Your task to perform on an android device: Open calendar and show me the first week of next month Image 0: 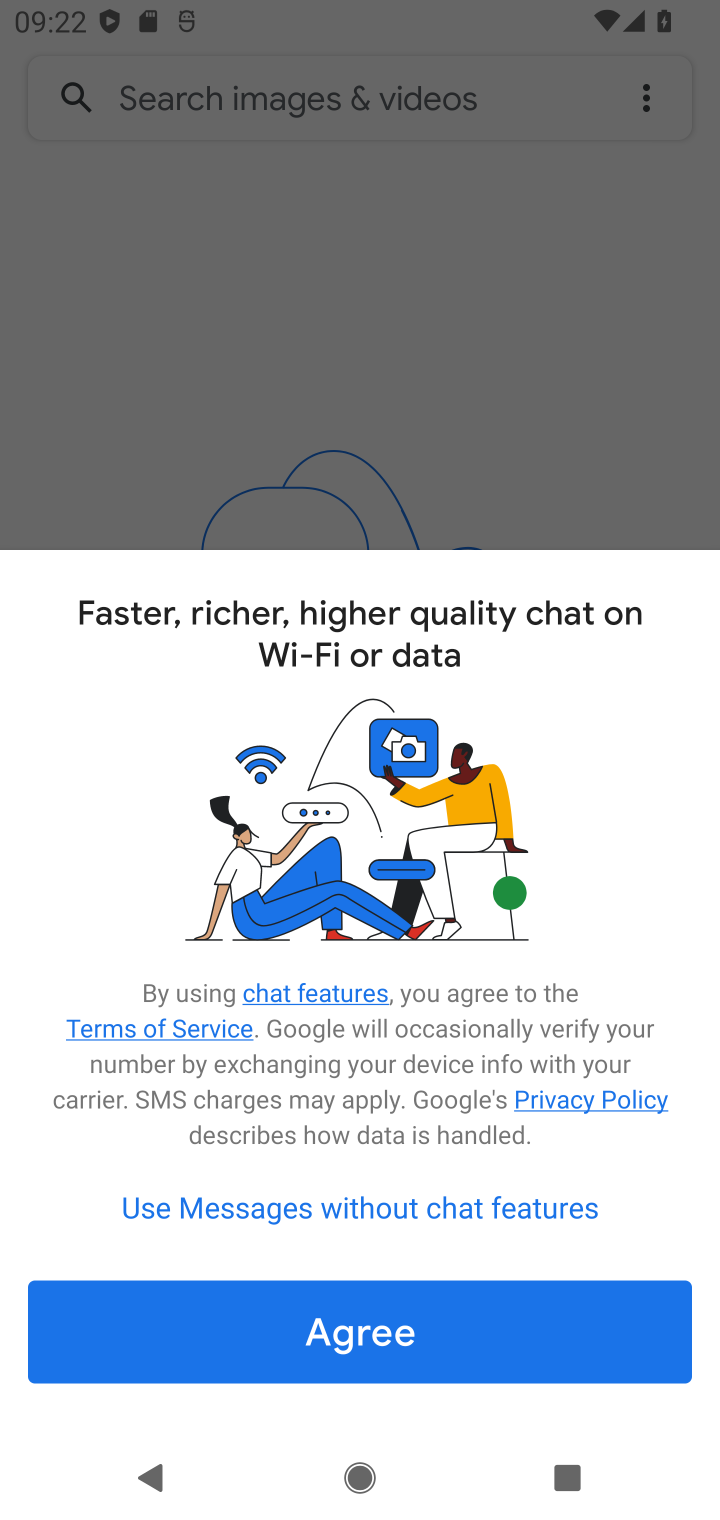
Step 0: click (523, 1334)
Your task to perform on an android device: Open calendar and show me the first week of next month Image 1: 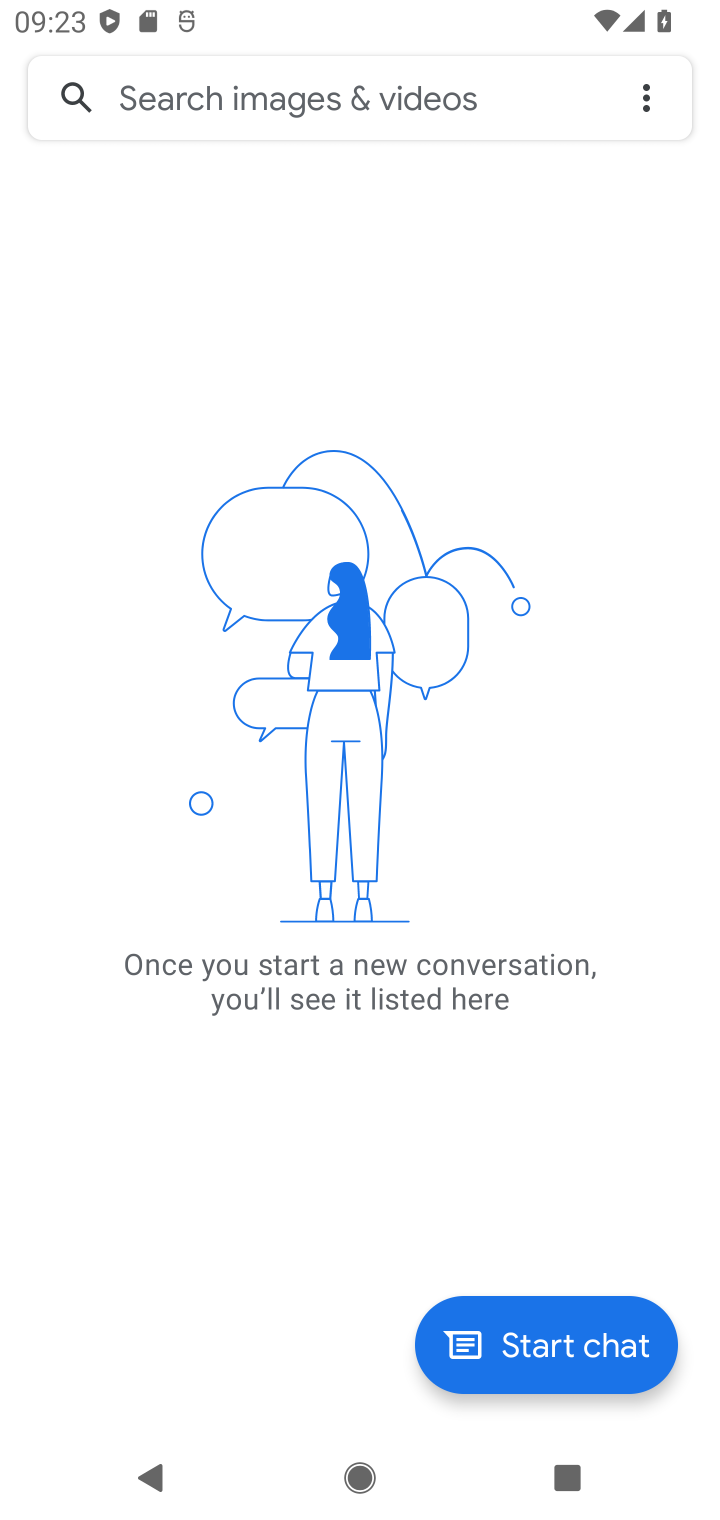
Step 1: press home button
Your task to perform on an android device: Open calendar and show me the first week of next month Image 2: 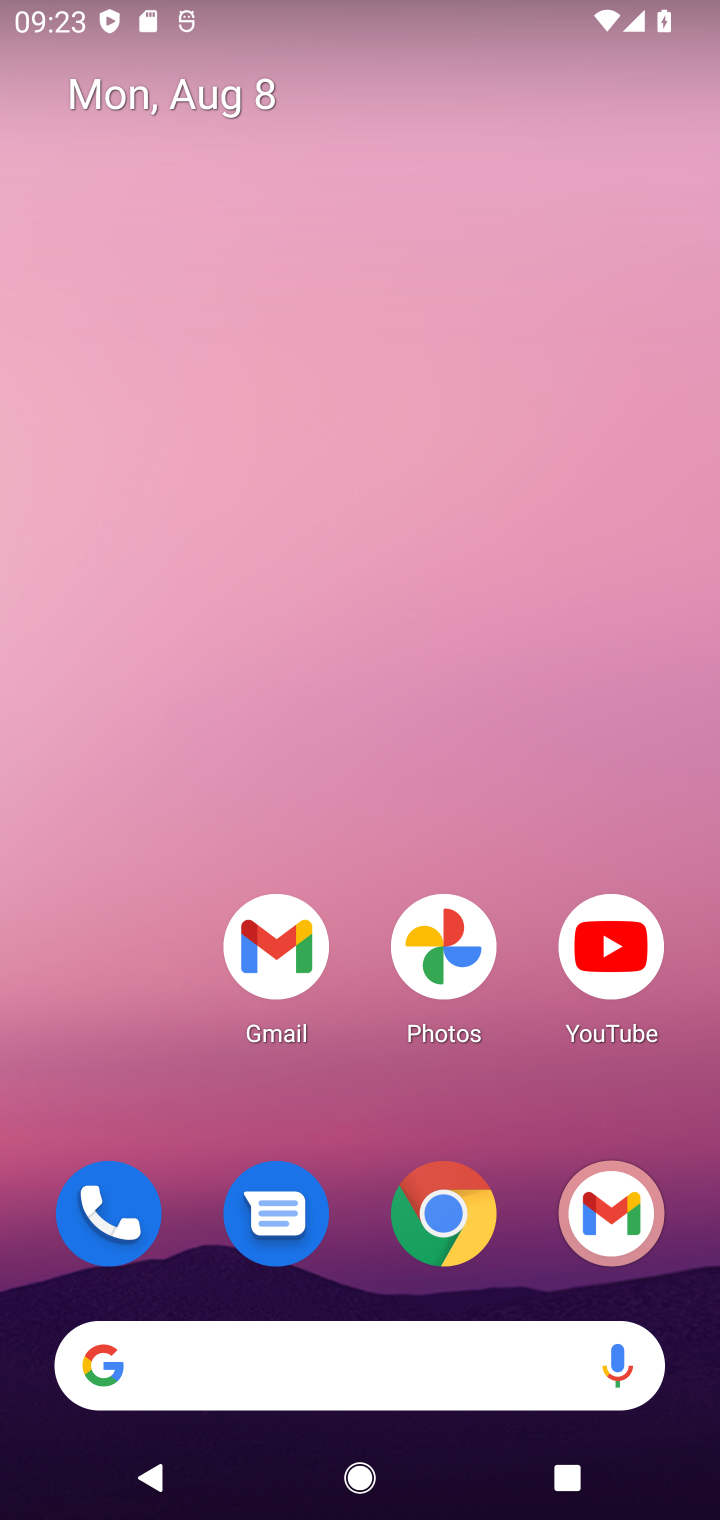
Step 2: drag from (328, 1010) to (283, 230)
Your task to perform on an android device: Open calendar and show me the first week of next month Image 3: 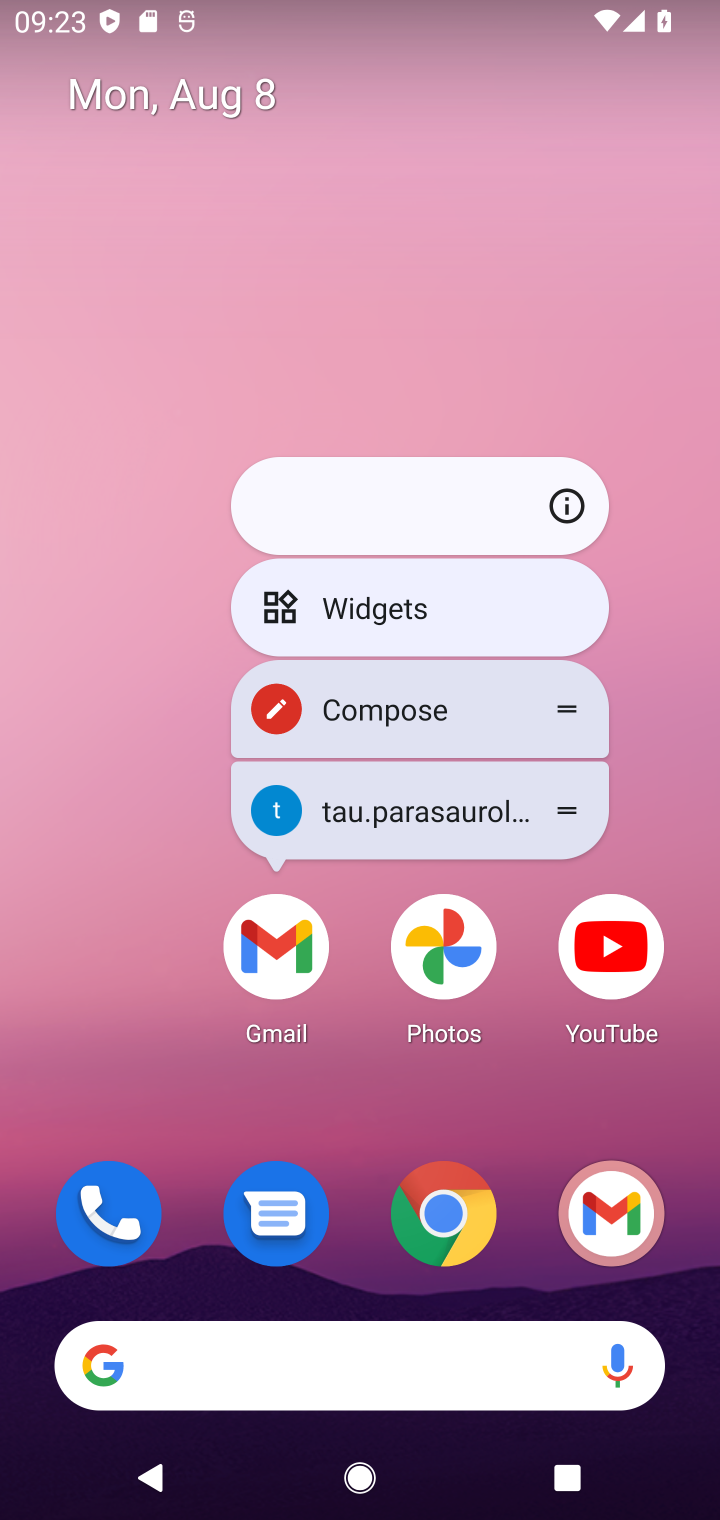
Step 3: click (118, 1036)
Your task to perform on an android device: Open calendar and show me the first week of next month Image 4: 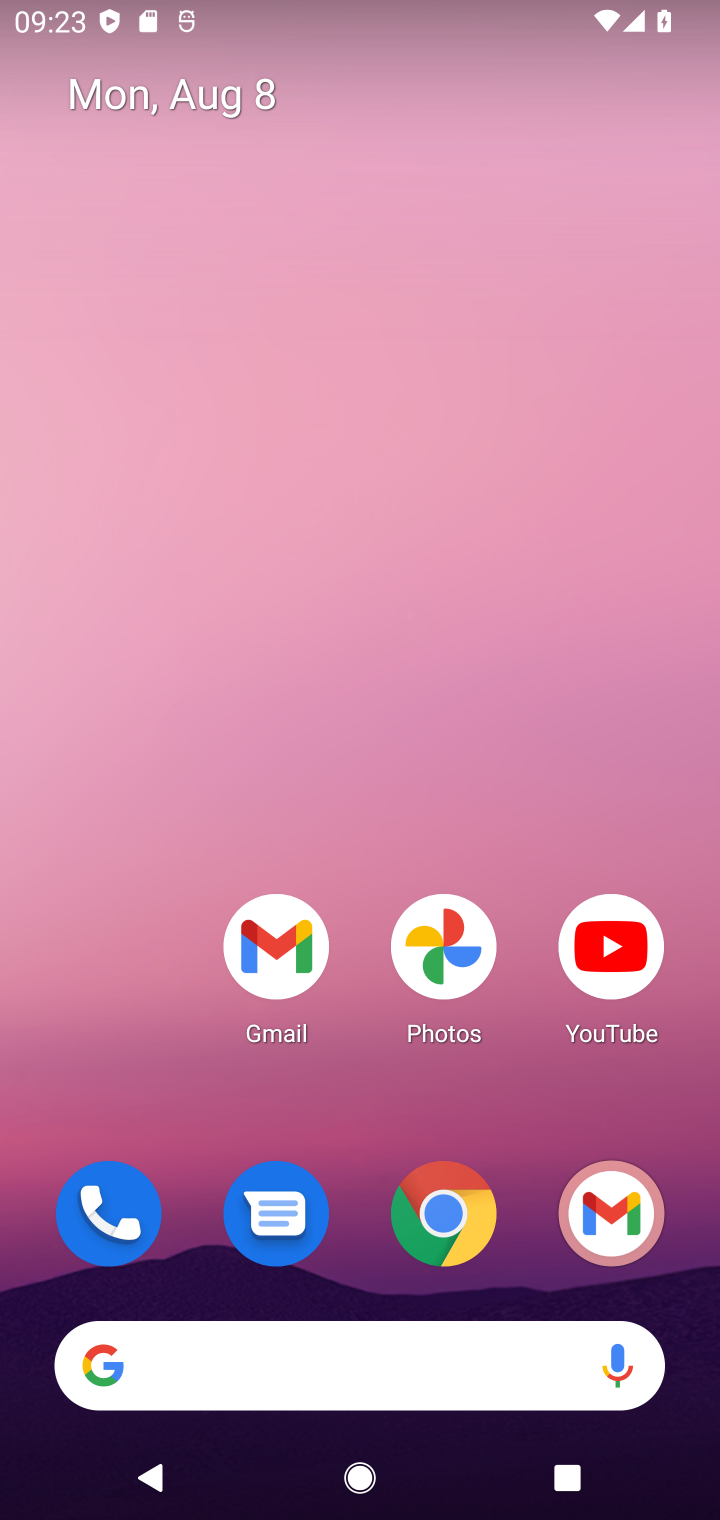
Step 4: drag from (348, 1126) to (356, 504)
Your task to perform on an android device: Open calendar and show me the first week of next month Image 5: 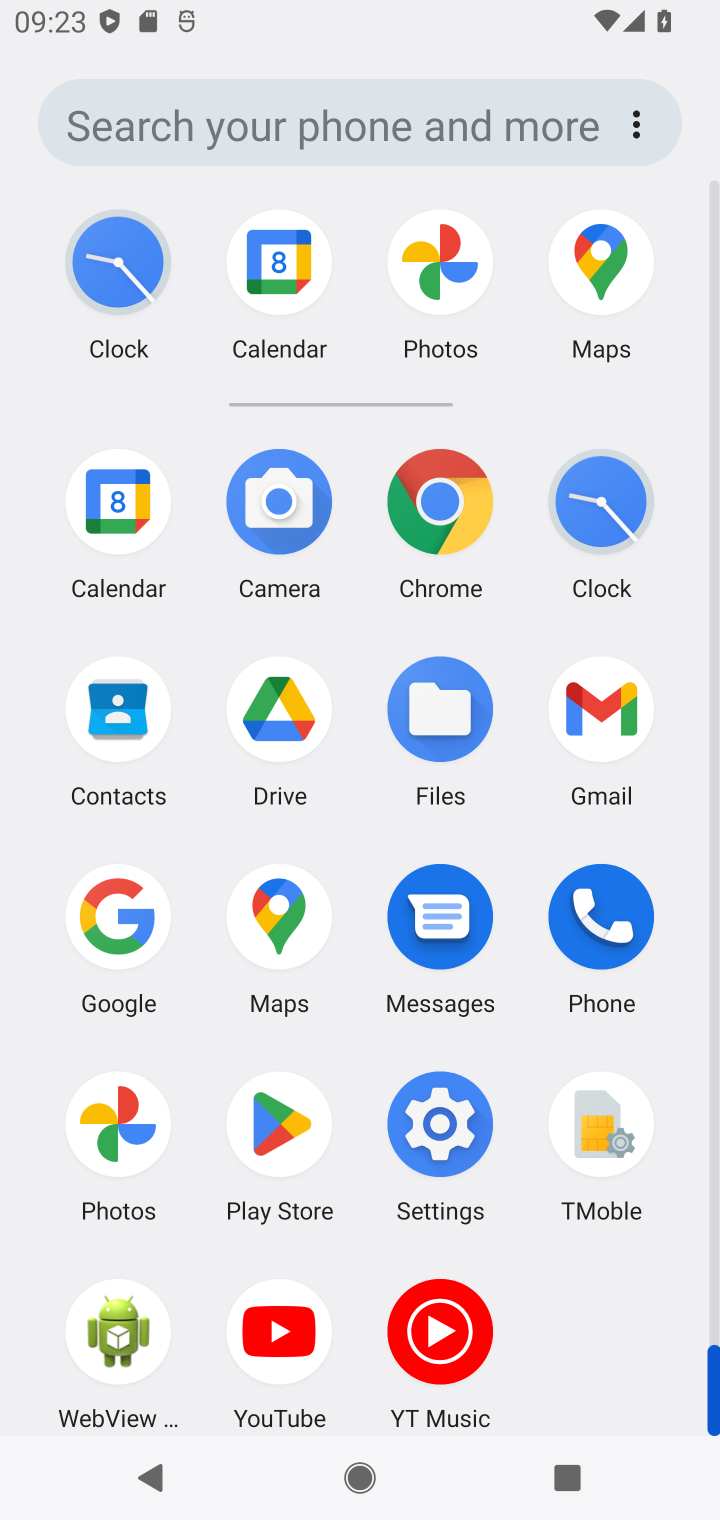
Step 5: click (139, 520)
Your task to perform on an android device: Open calendar and show me the first week of next month Image 6: 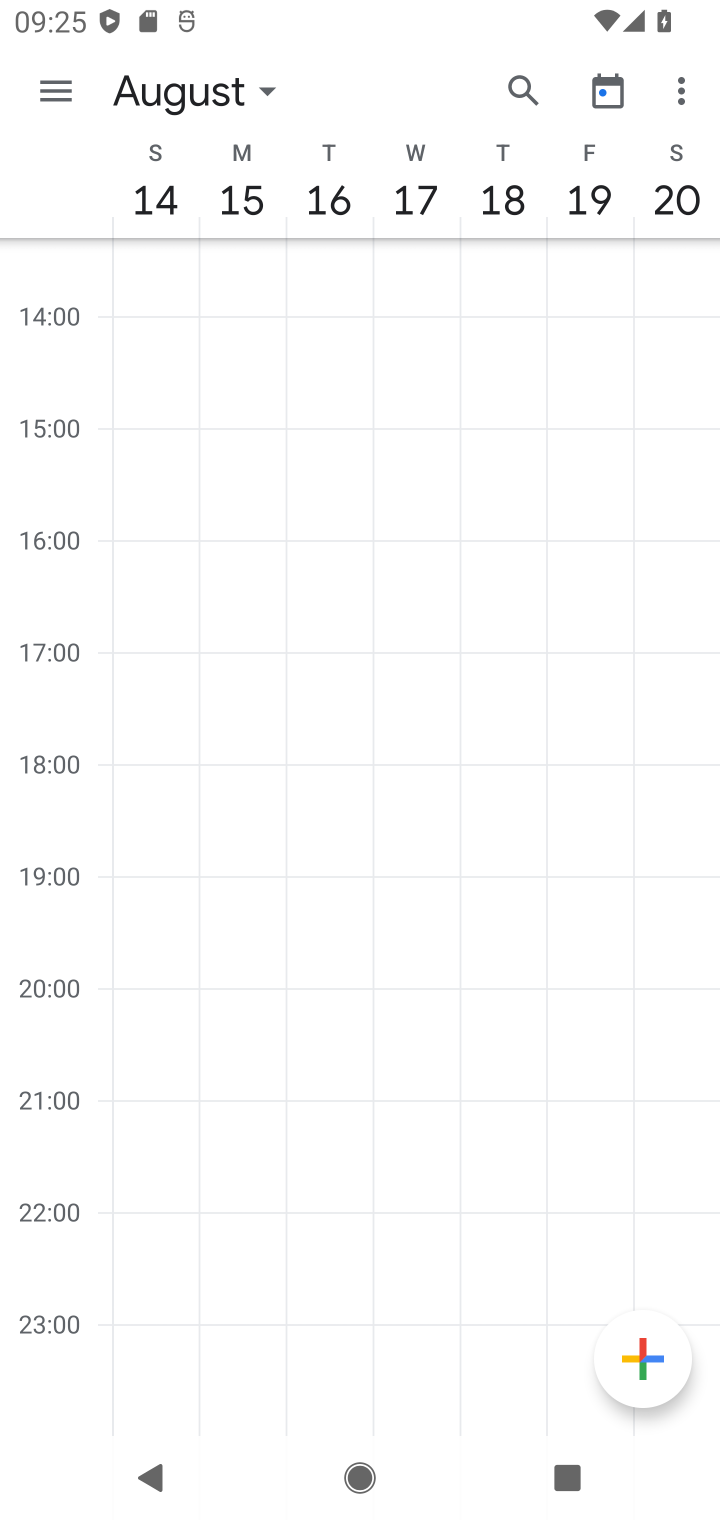
Step 6: click (264, 86)
Your task to perform on an android device: Open calendar and show me the first week of next month Image 7: 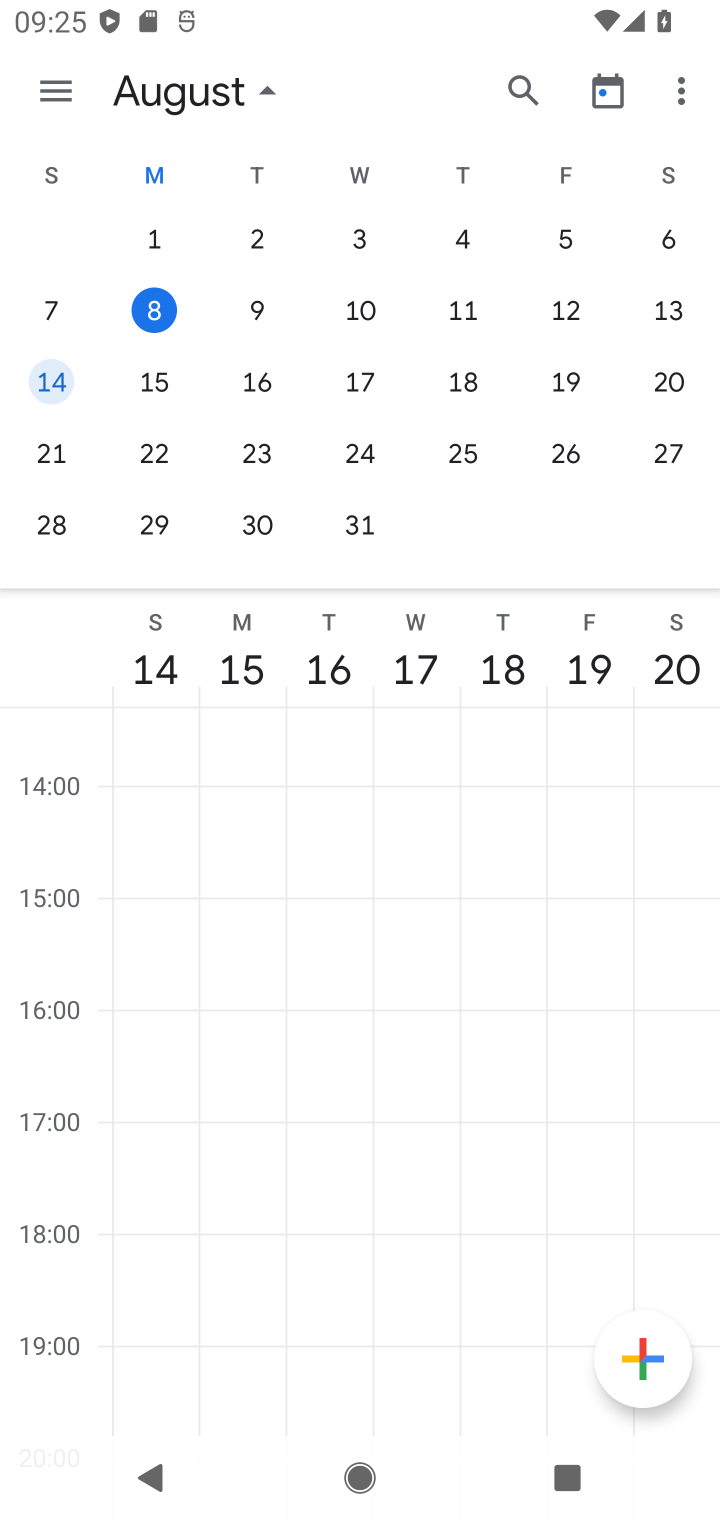
Step 7: drag from (581, 350) to (0, 372)
Your task to perform on an android device: Open calendar and show me the first week of next month Image 8: 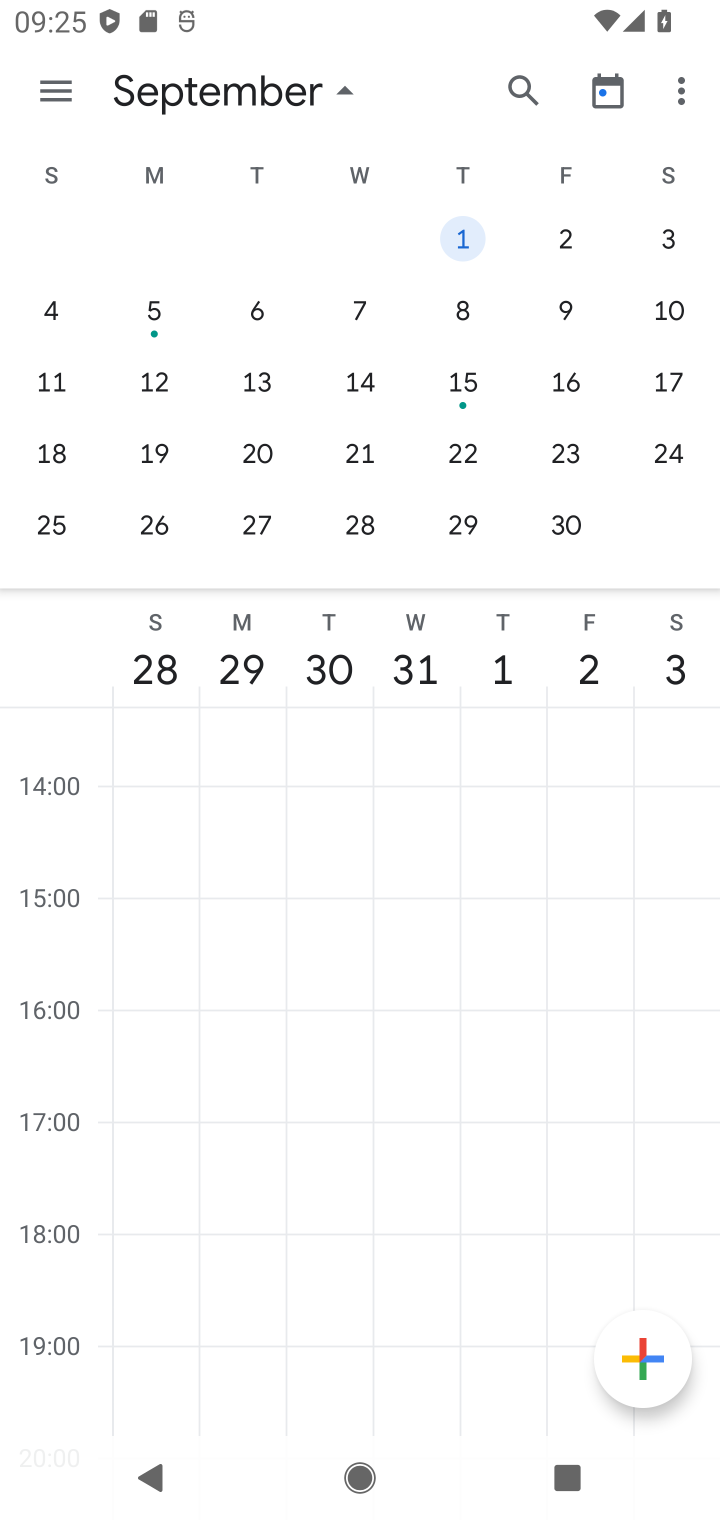
Step 8: click (55, 308)
Your task to perform on an android device: Open calendar and show me the first week of next month Image 9: 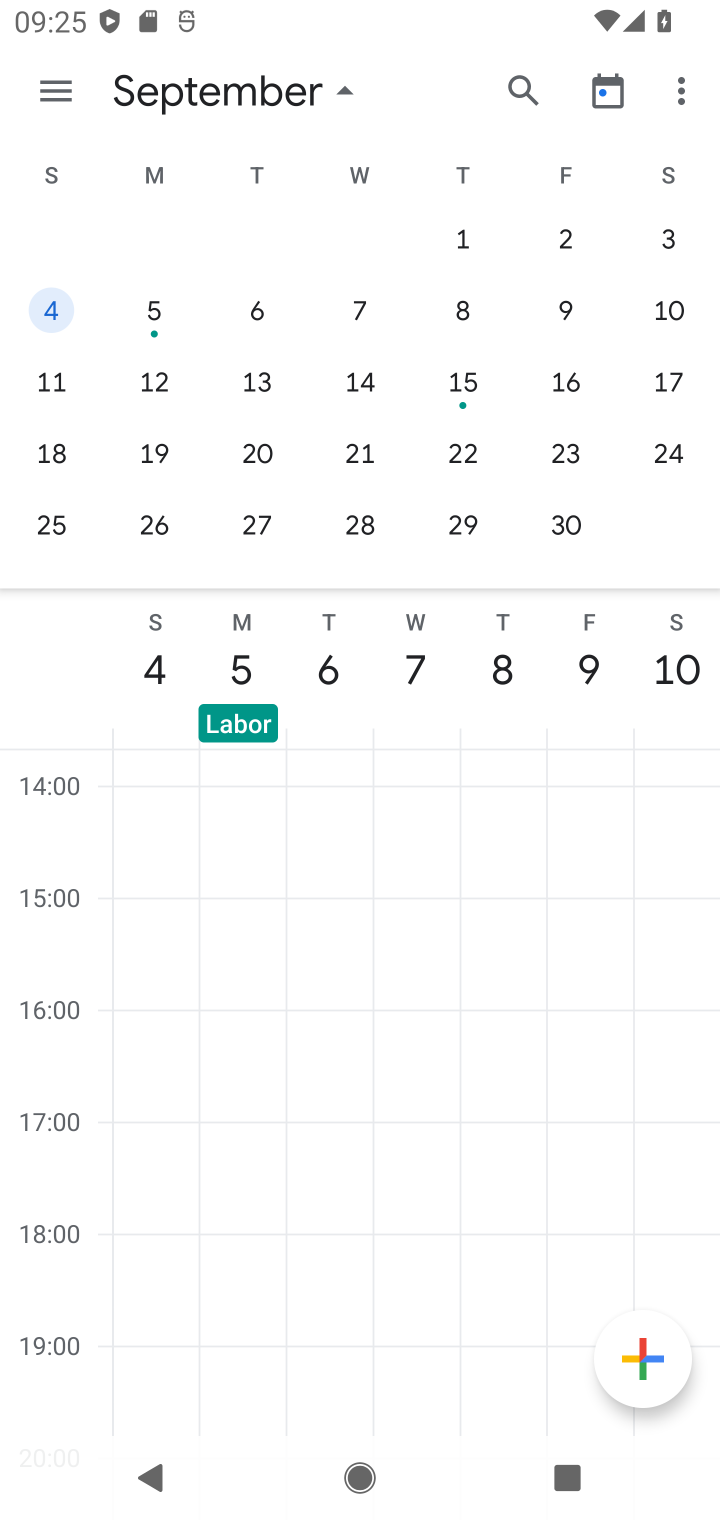
Step 9: click (310, 87)
Your task to perform on an android device: Open calendar and show me the first week of next month Image 10: 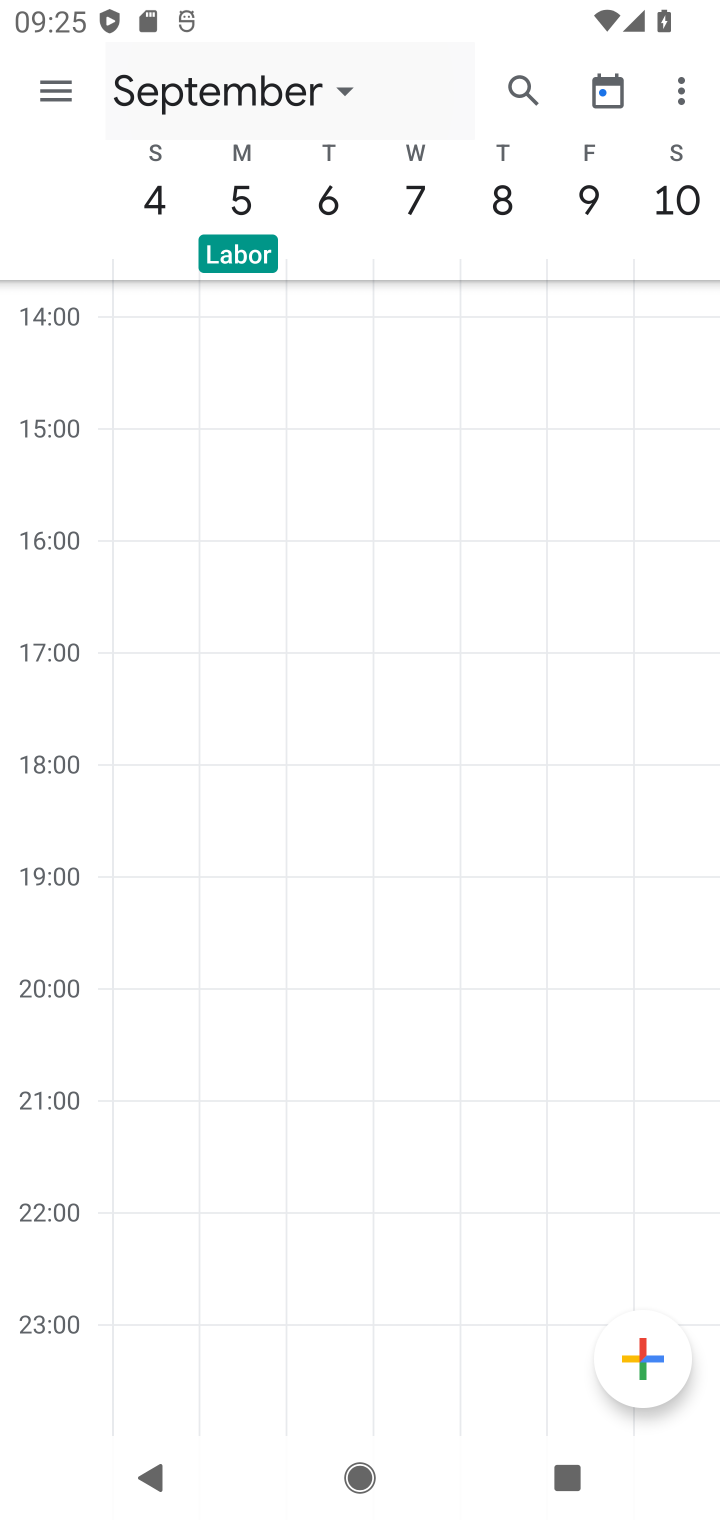
Step 10: task complete